Your task to perform on an android device: Search for the best rated tool bag on Lowe's. Image 0: 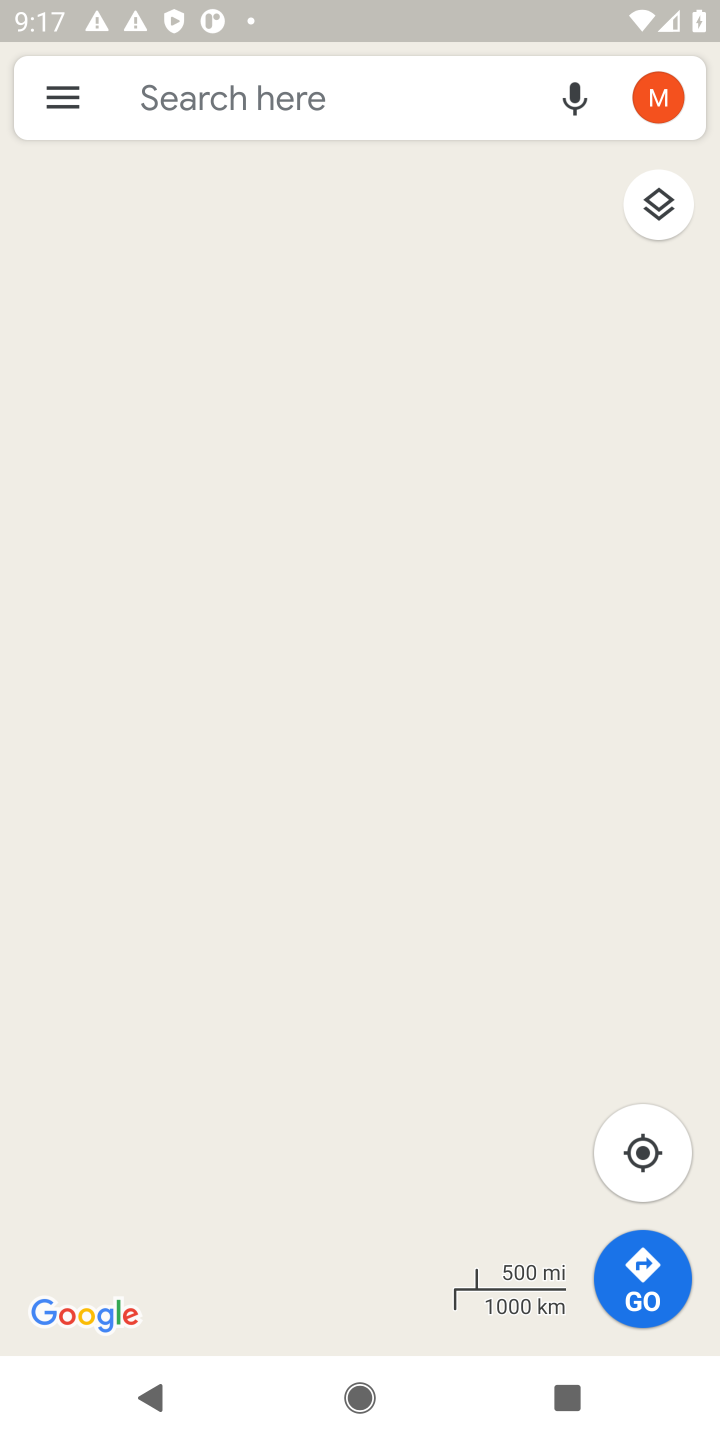
Step 0: press home button
Your task to perform on an android device: Search for the best rated tool bag on Lowe's. Image 1: 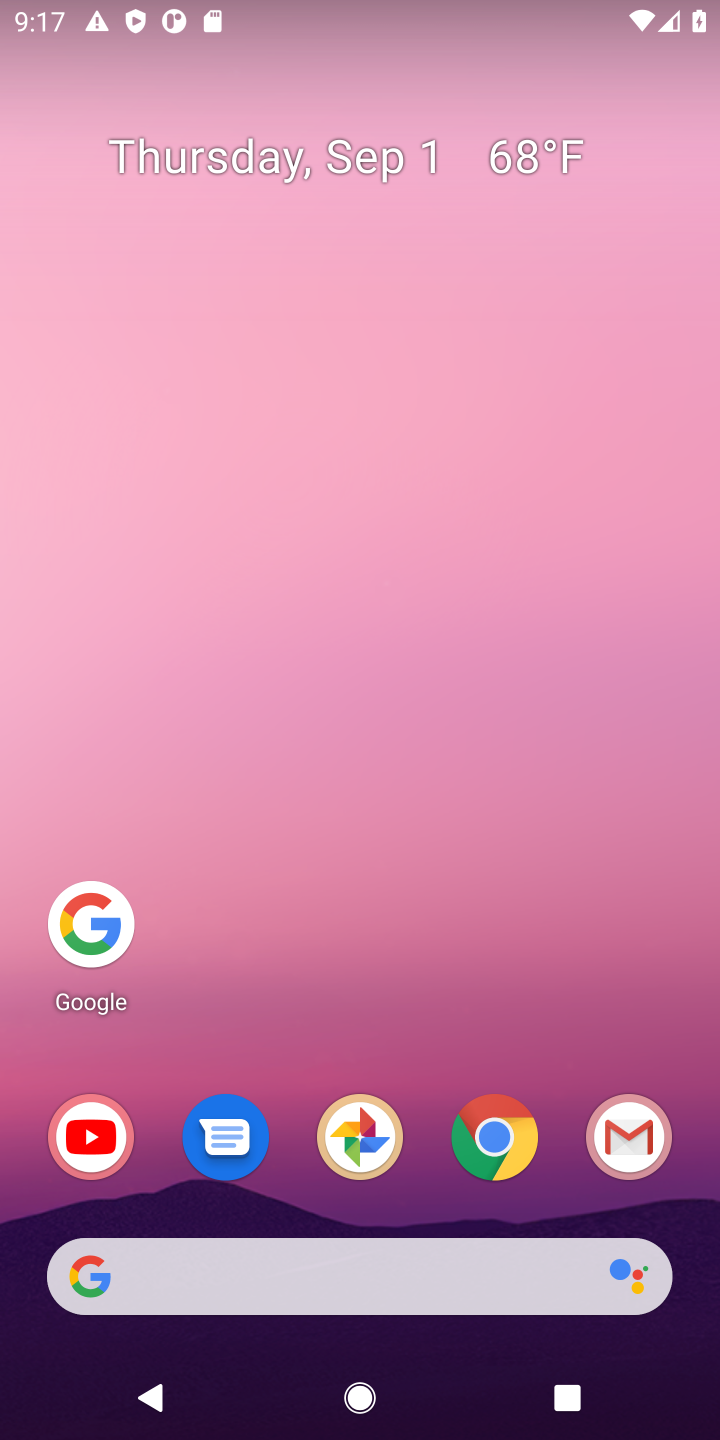
Step 1: click (156, 1256)
Your task to perform on an android device: Search for the best rated tool bag on Lowe's. Image 2: 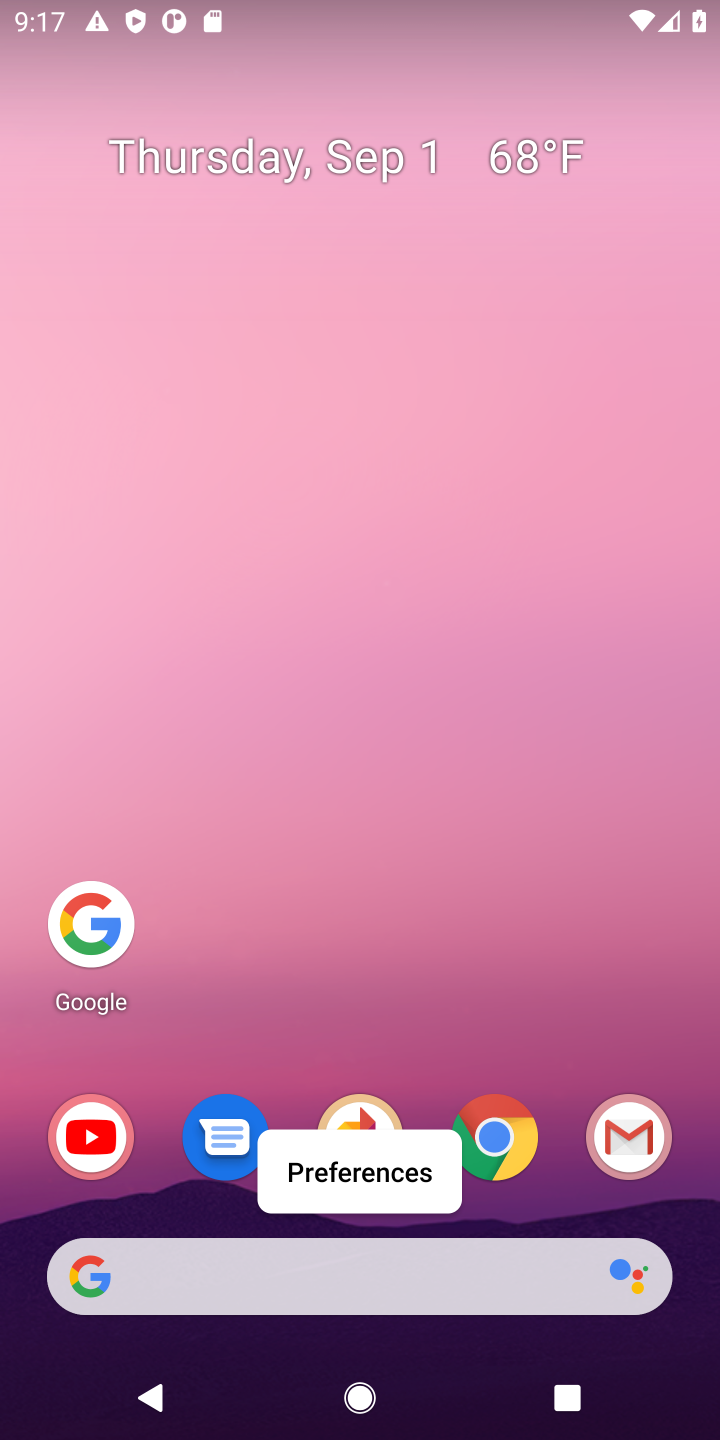
Step 2: click (87, 882)
Your task to perform on an android device: Search for the best rated tool bag on Lowe's. Image 3: 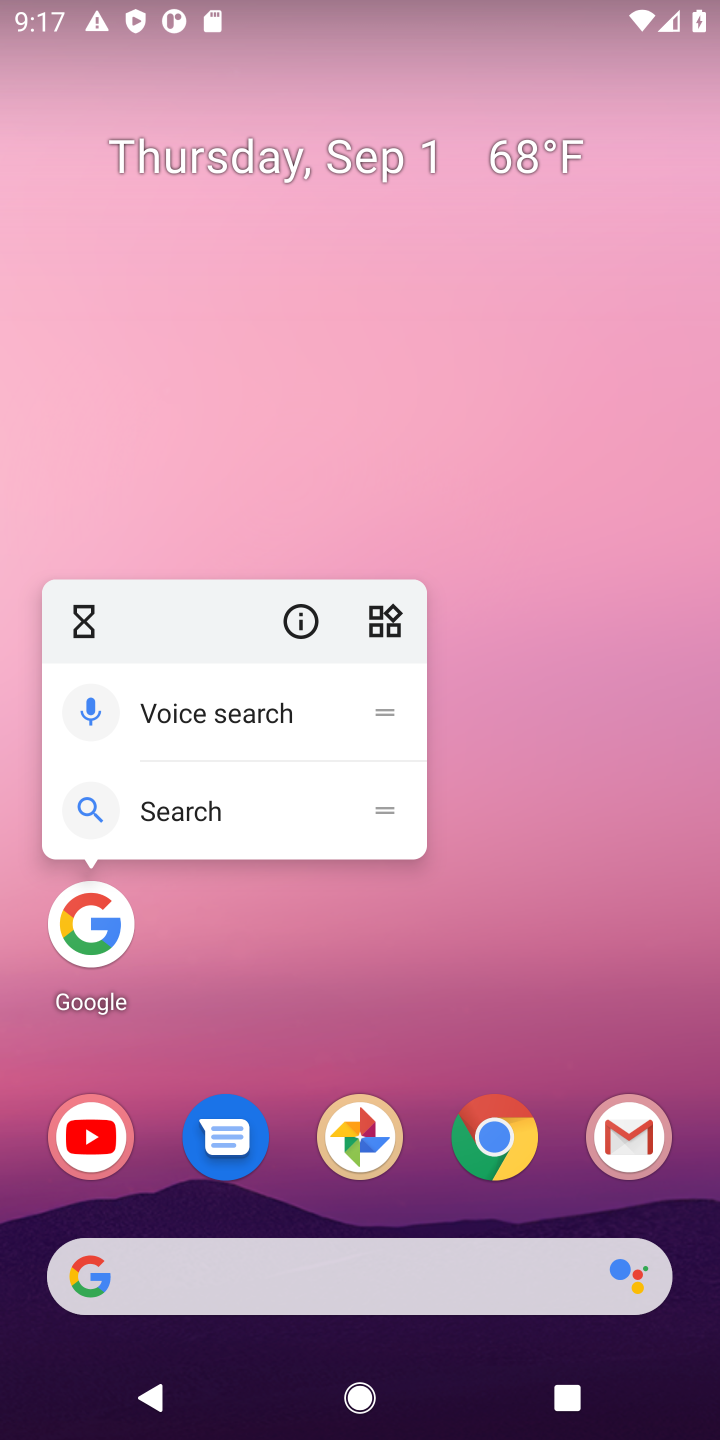
Step 3: click (77, 925)
Your task to perform on an android device: Search for the best rated tool bag on Lowe's. Image 4: 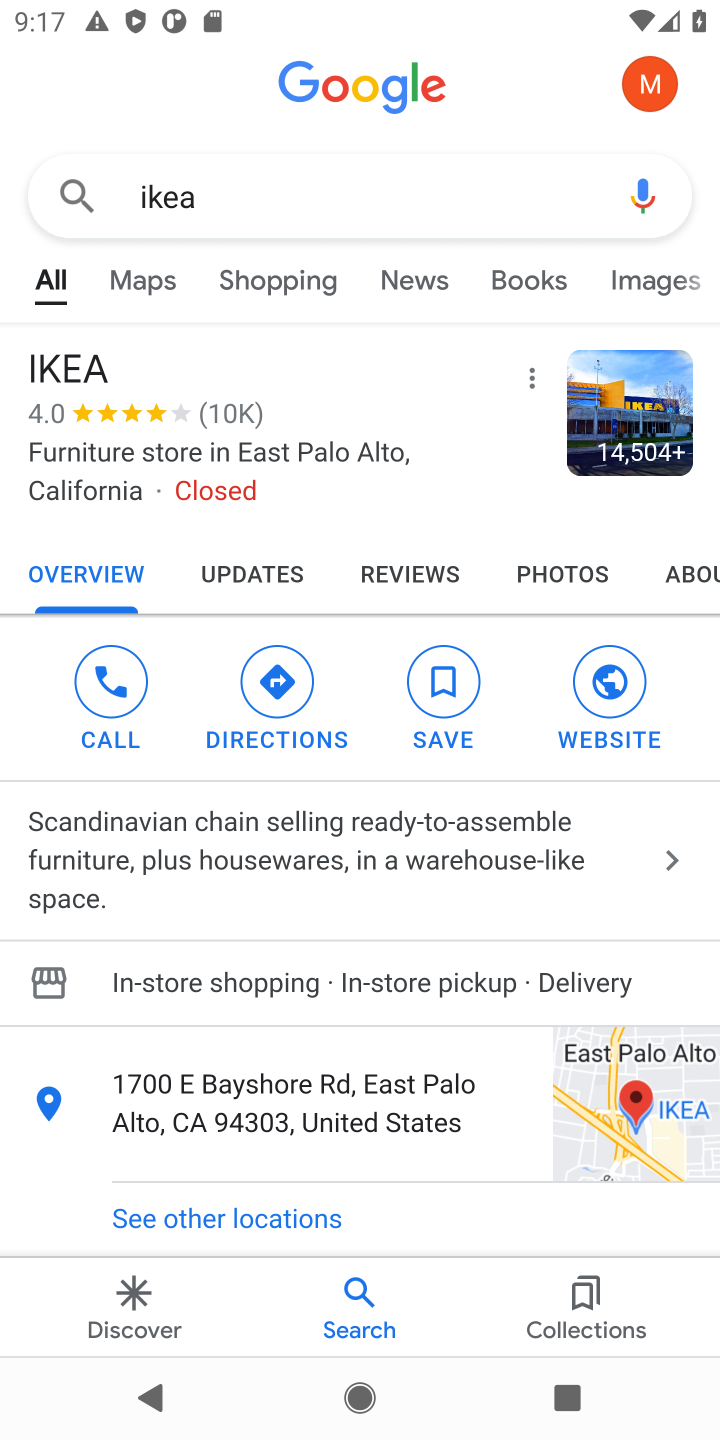
Step 4: click (320, 182)
Your task to perform on an android device: Search for the best rated tool bag on Lowe's. Image 5: 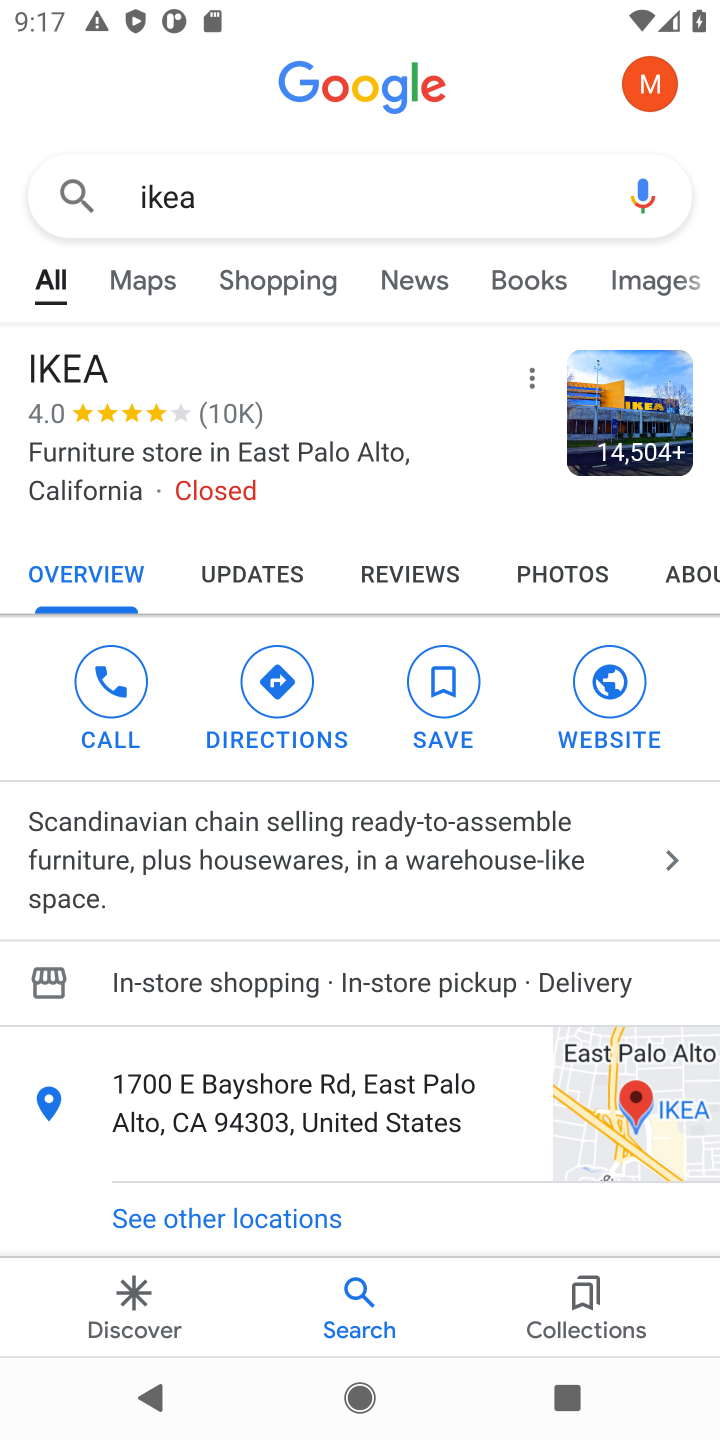
Step 5: click (320, 182)
Your task to perform on an android device: Search for the best rated tool bag on Lowe's. Image 6: 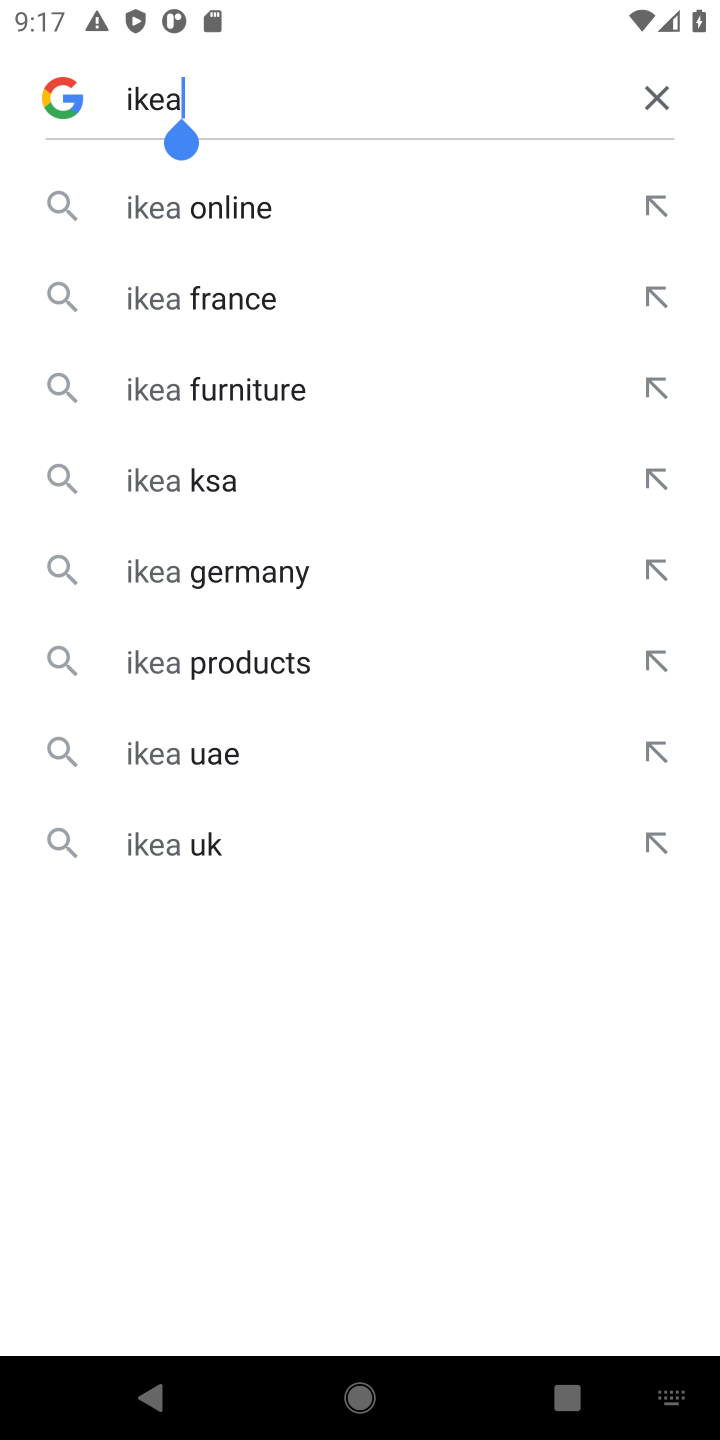
Step 6: click (655, 98)
Your task to perform on an android device: Search for the best rated tool bag on Lowe's. Image 7: 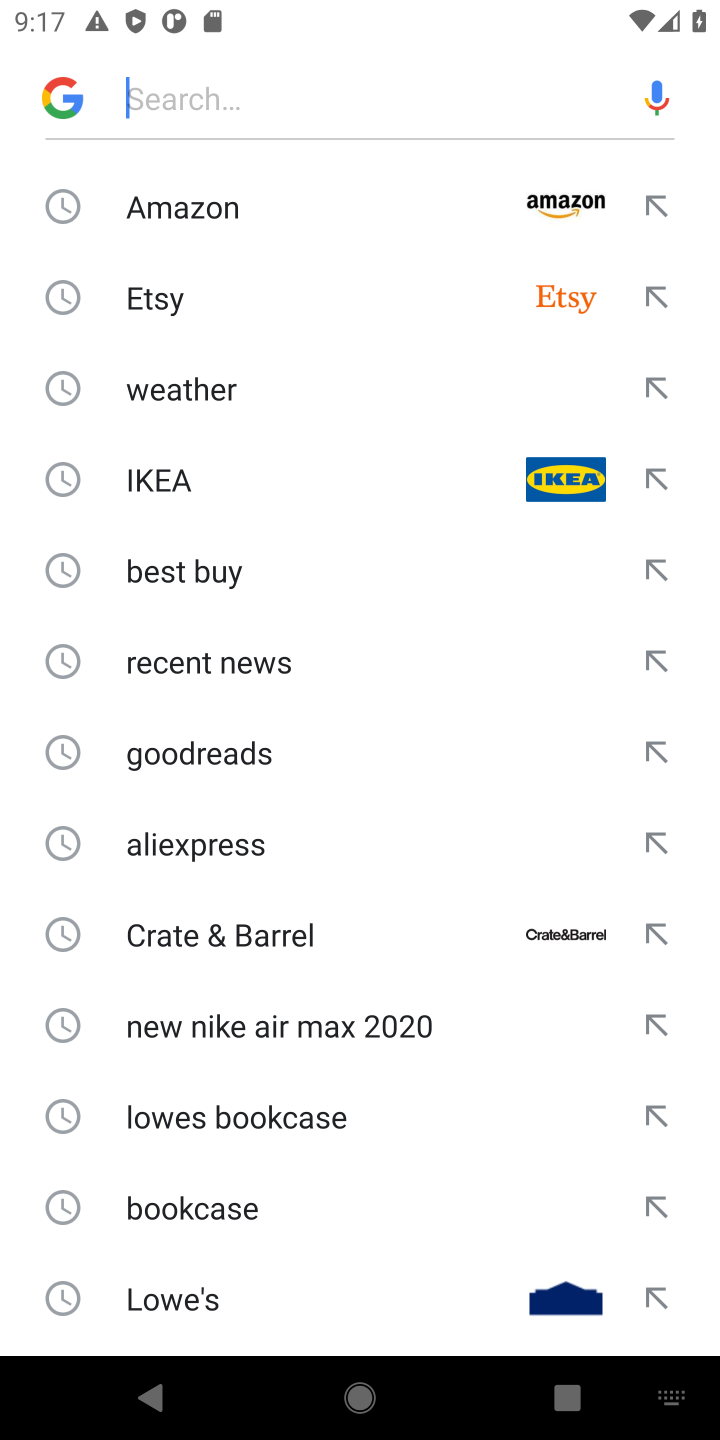
Step 7: click (190, 1286)
Your task to perform on an android device: Search for the best rated tool bag on Lowe's. Image 8: 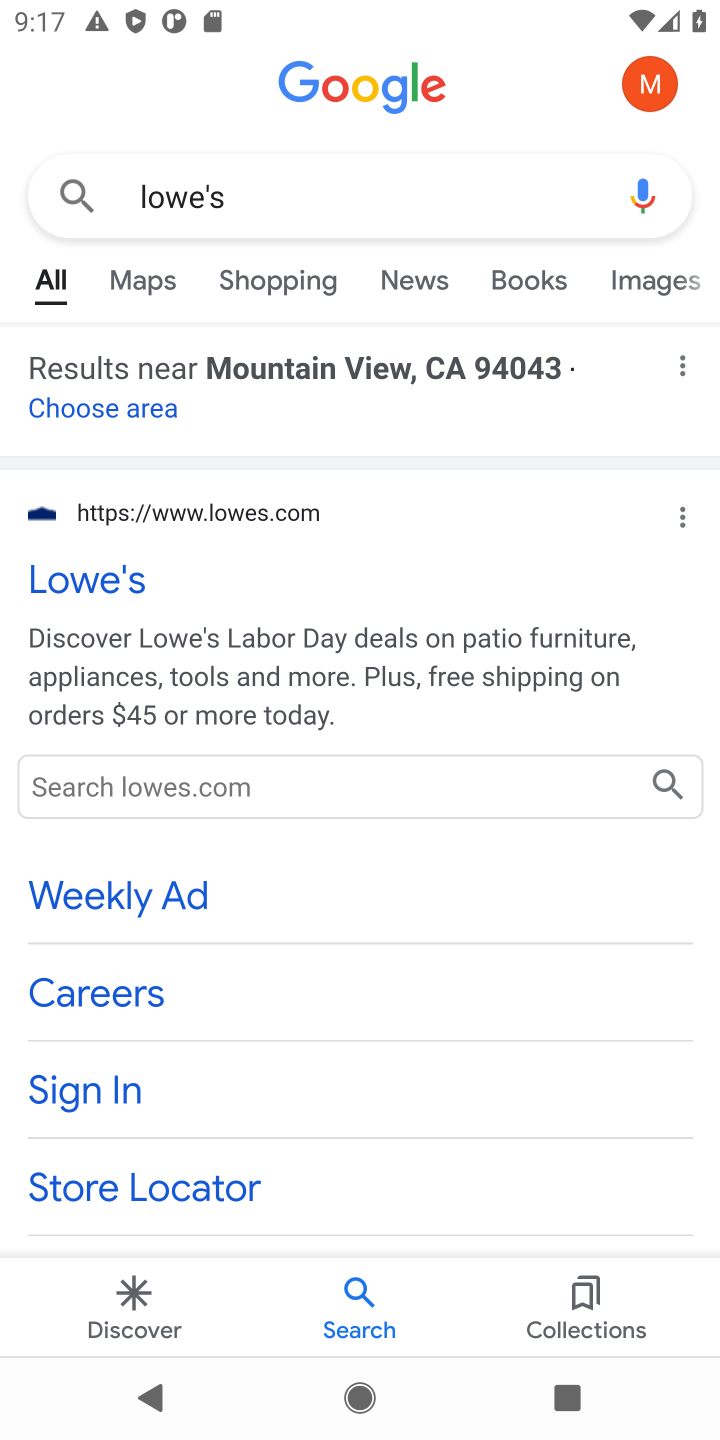
Step 8: click (60, 572)
Your task to perform on an android device: Search for the best rated tool bag on Lowe's. Image 9: 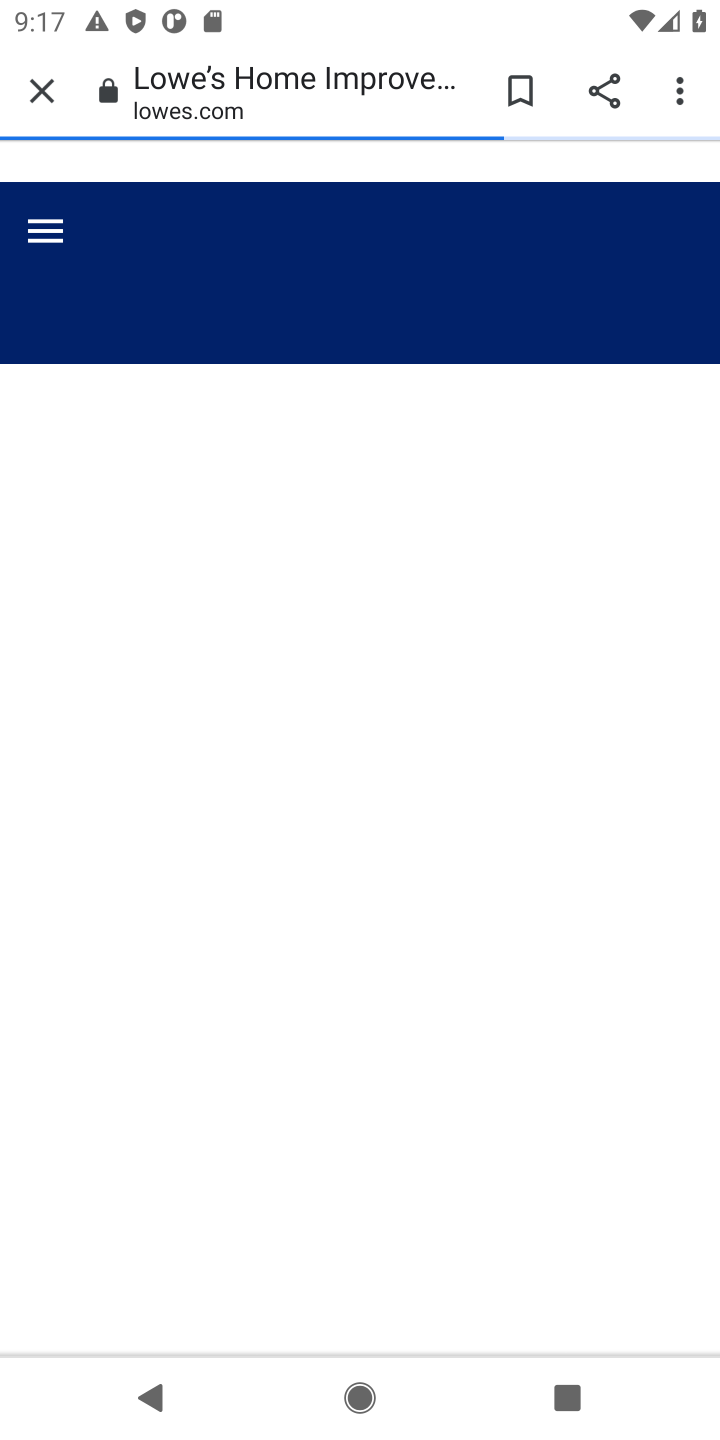
Step 9: click (118, 578)
Your task to perform on an android device: Search for the best rated tool bag on Lowe's. Image 10: 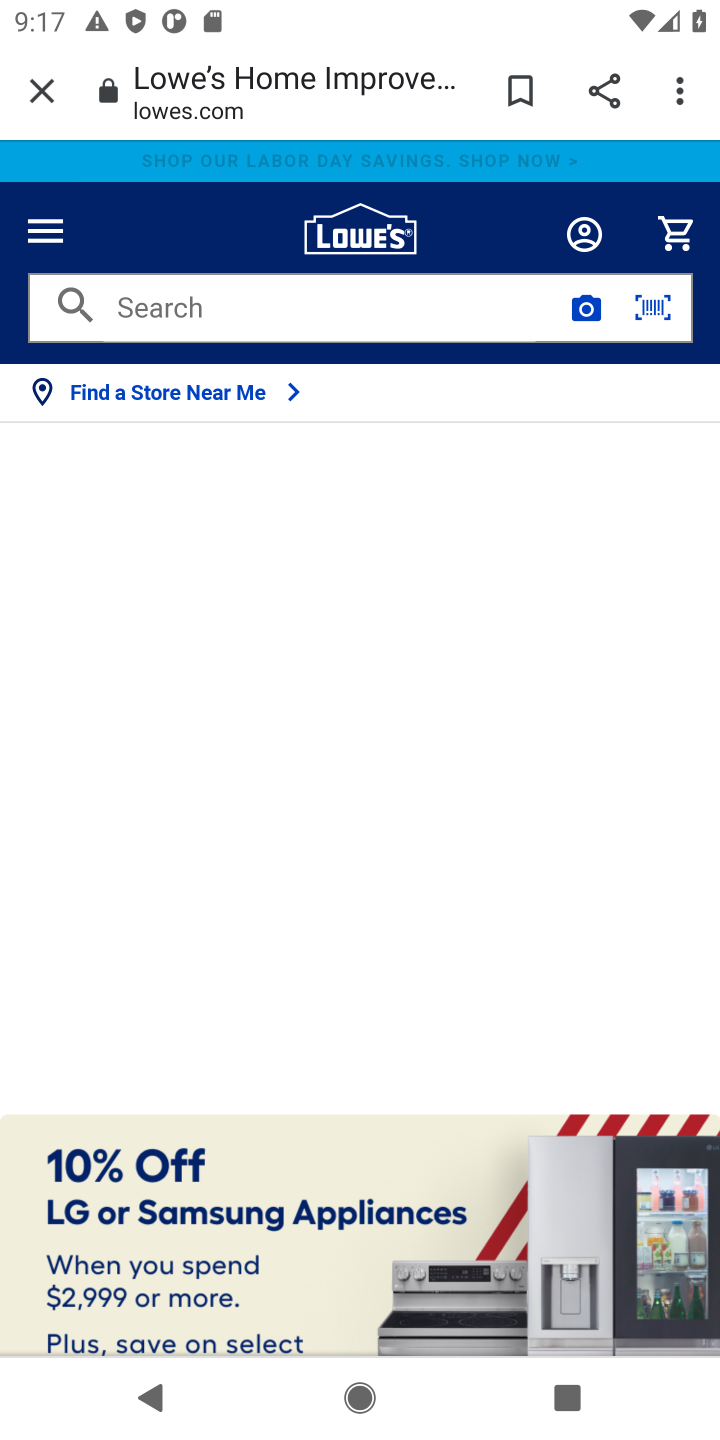
Step 10: click (262, 302)
Your task to perform on an android device: Search for the best rated tool bag on Lowe's. Image 11: 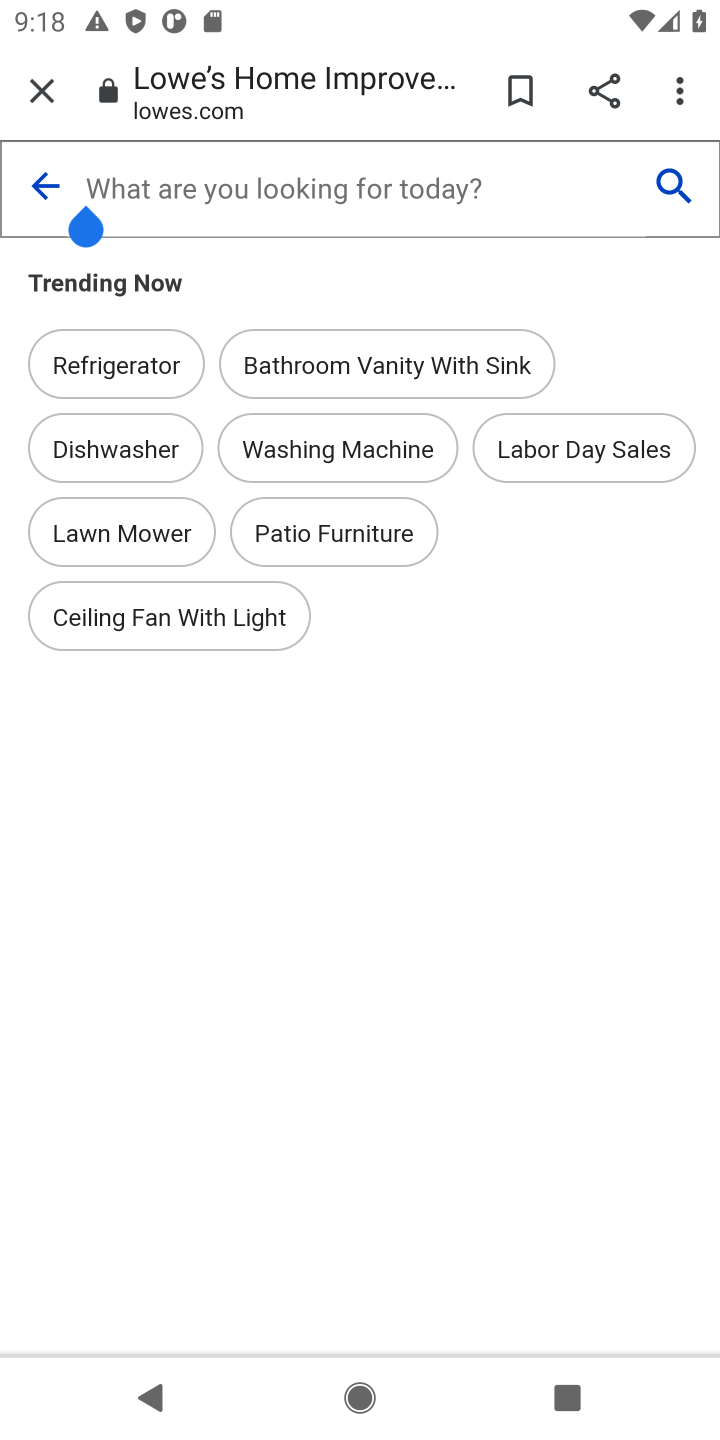
Step 11: type "best rated tool bag"
Your task to perform on an android device: Search for the best rated tool bag on Lowe's. Image 12: 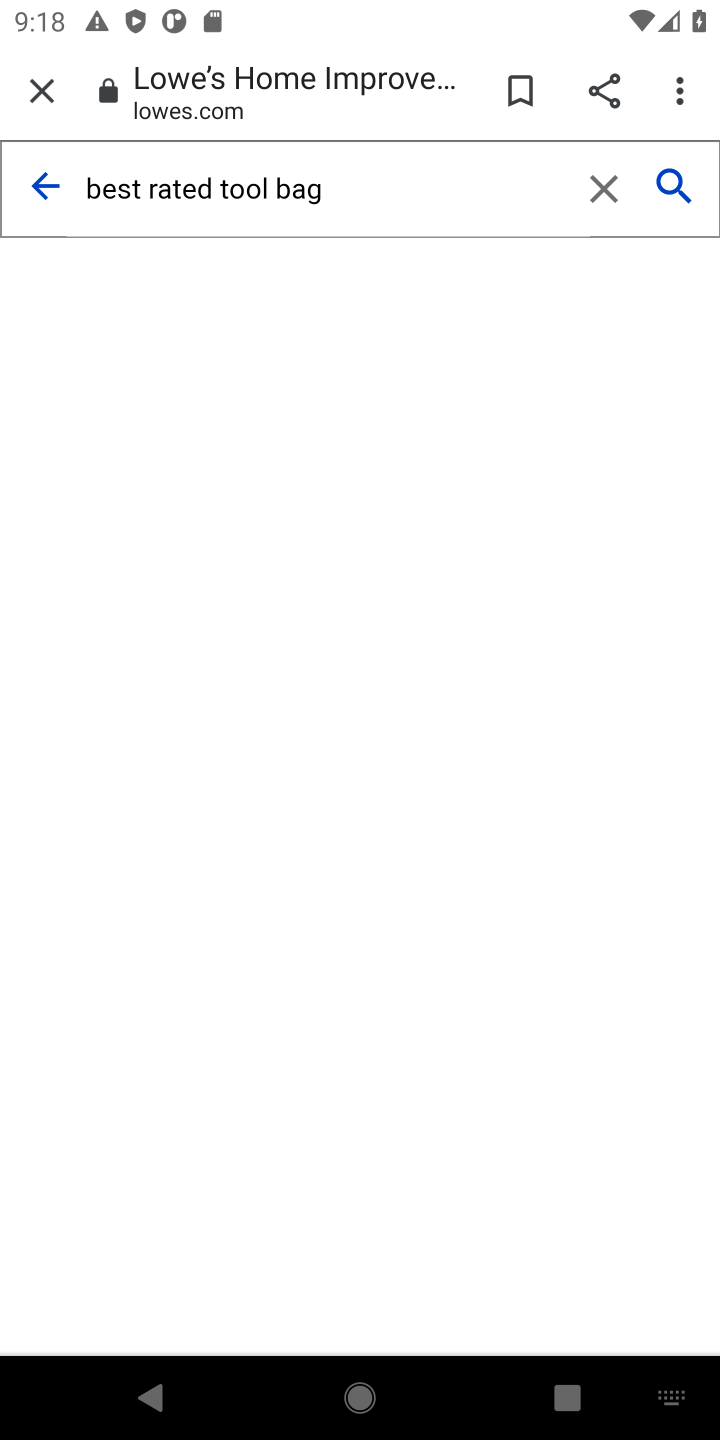
Step 12: click (665, 183)
Your task to perform on an android device: Search for the best rated tool bag on Lowe's. Image 13: 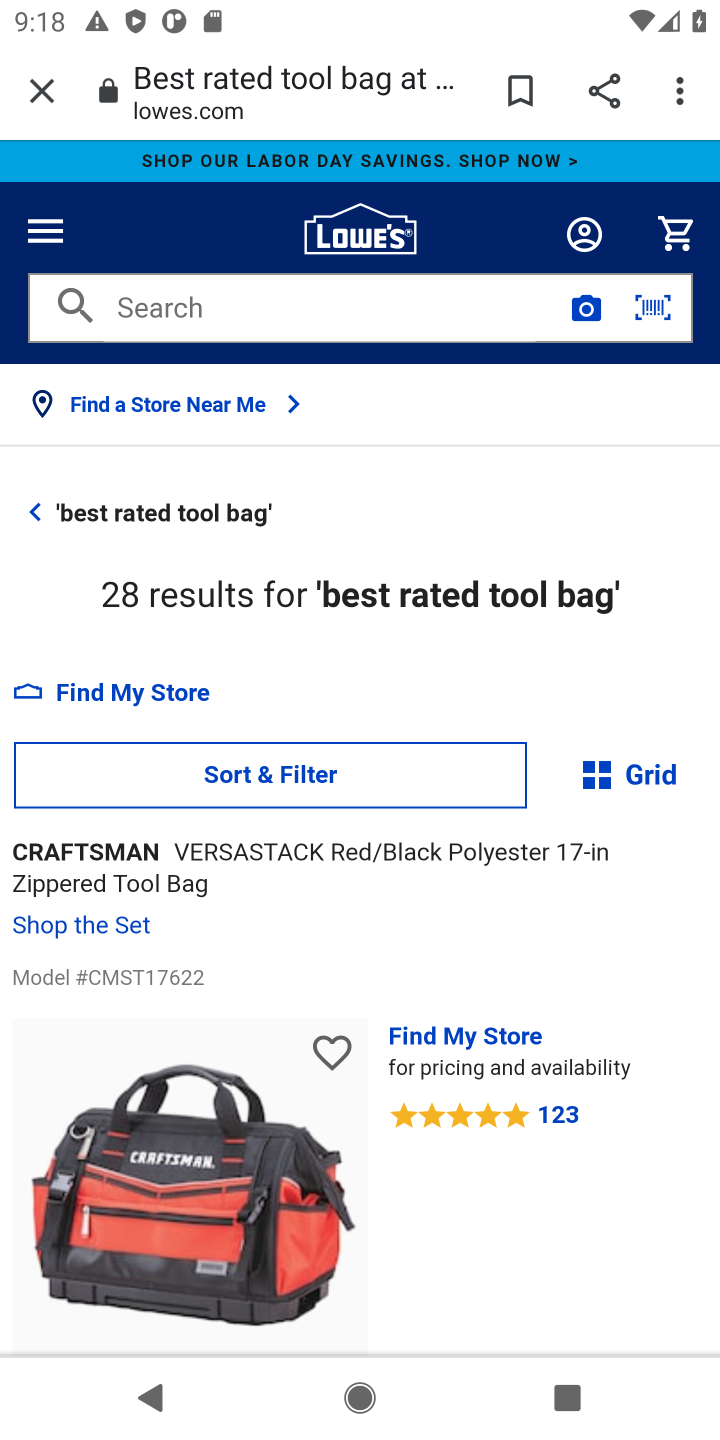
Step 13: task complete